Your task to perform on an android device: Check the news Image 0: 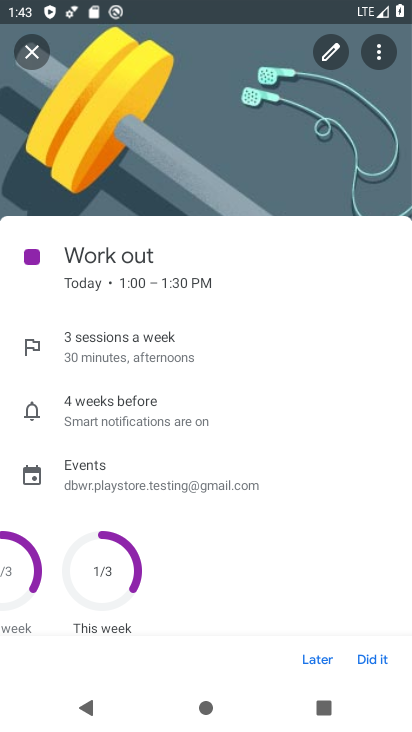
Step 0: press home button
Your task to perform on an android device: Check the news Image 1: 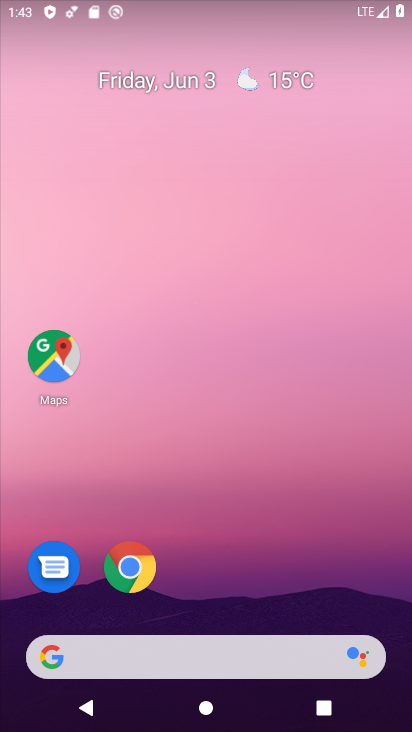
Step 1: drag from (221, 633) to (290, 110)
Your task to perform on an android device: Check the news Image 2: 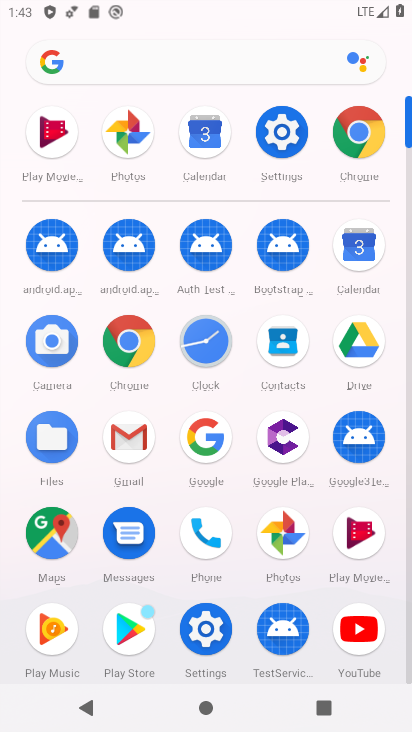
Step 2: click (207, 438)
Your task to perform on an android device: Check the news Image 3: 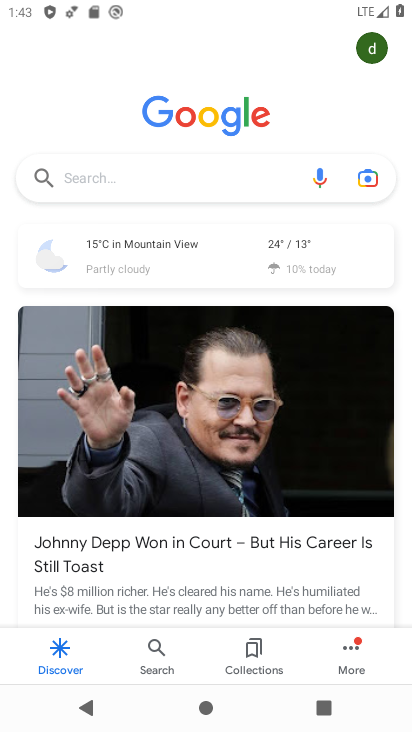
Step 3: click (152, 185)
Your task to perform on an android device: Check the news Image 4: 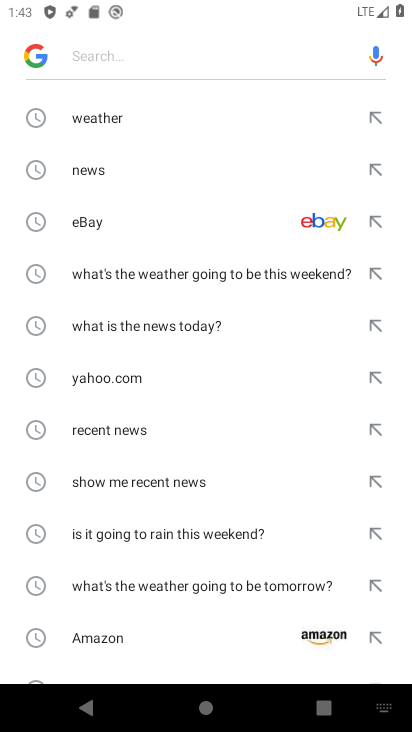
Step 4: click (103, 173)
Your task to perform on an android device: Check the news Image 5: 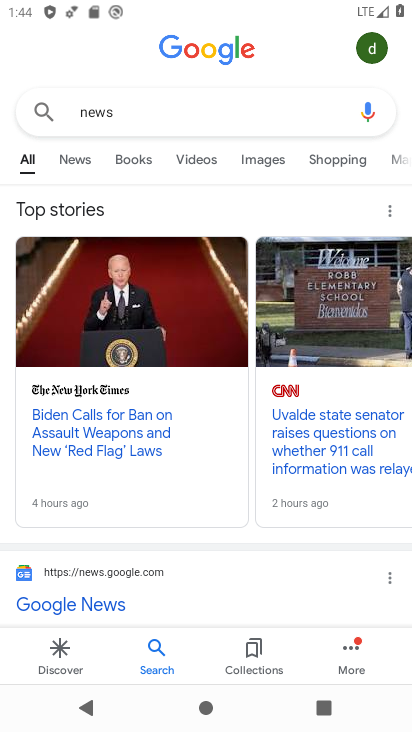
Step 5: task complete